Your task to perform on an android device: Turn off the flashlight Image 0: 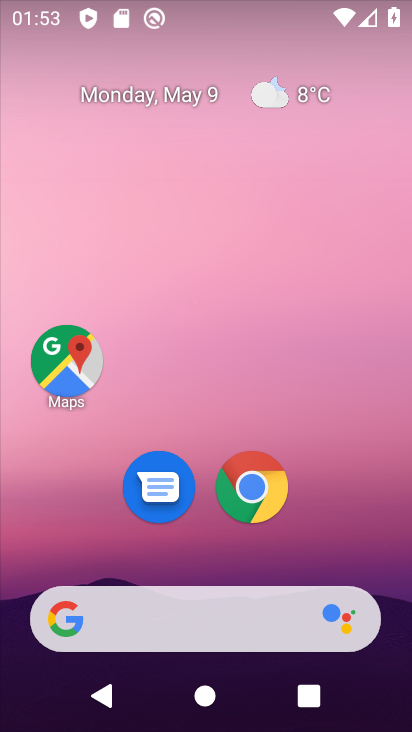
Step 0: drag from (365, 555) to (322, 132)
Your task to perform on an android device: Turn off the flashlight Image 1: 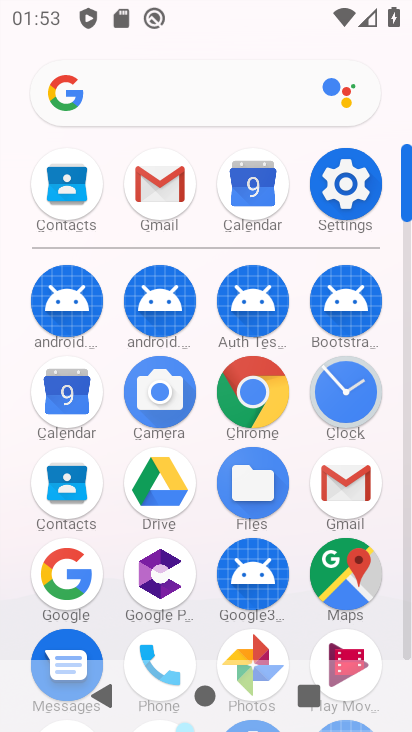
Step 1: drag from (289, 2) to (294, 478)
Your task to perform on an android device: Turn off the flashlight Image 2: 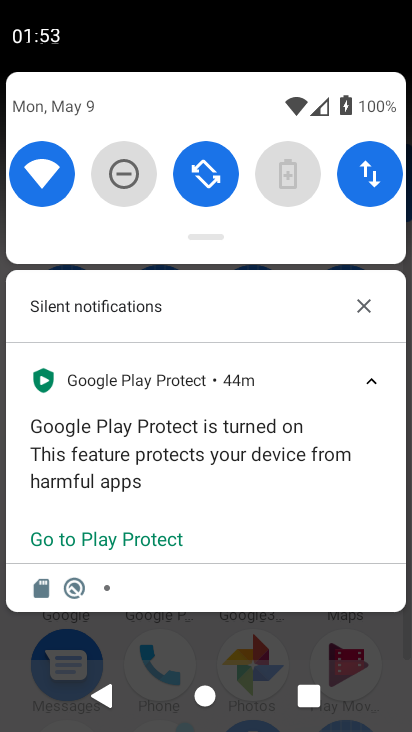
Step 2: drag from (260, 236) to (299, 719)
Your task to perform on an android device: Turn off the flashlight Image 3: 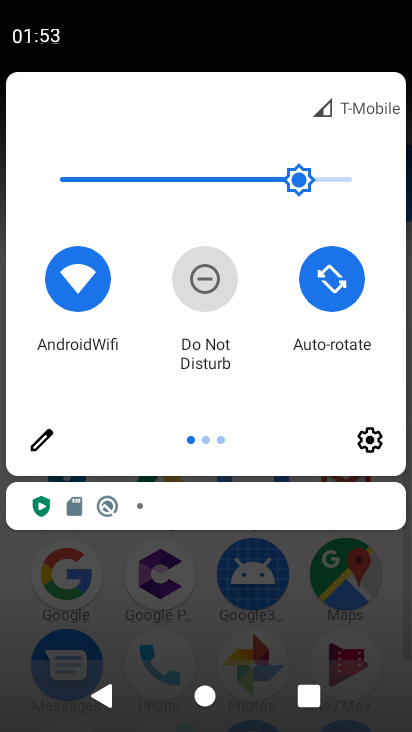
Step 3: click (38, 435)
Your task to perform on an android device: Turn off the flashlight Image 4: 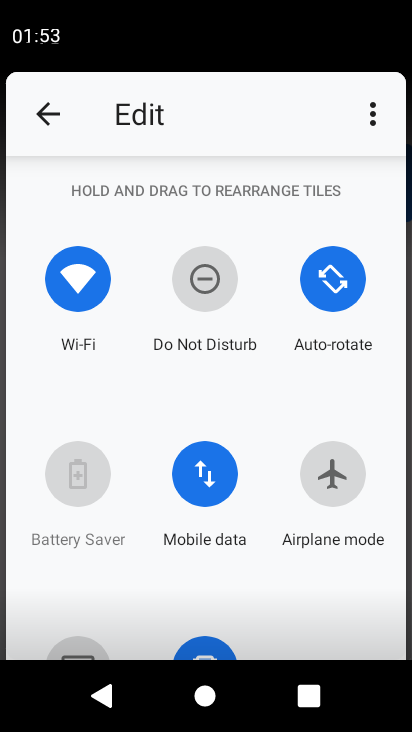
Step 4: task complete